Your task to perform on an android device: Clear the shopping cart on bestbuy. Search for duracell triple a on bestbuy, select the first entry, add it to the cart, then select checkout. Image 0: 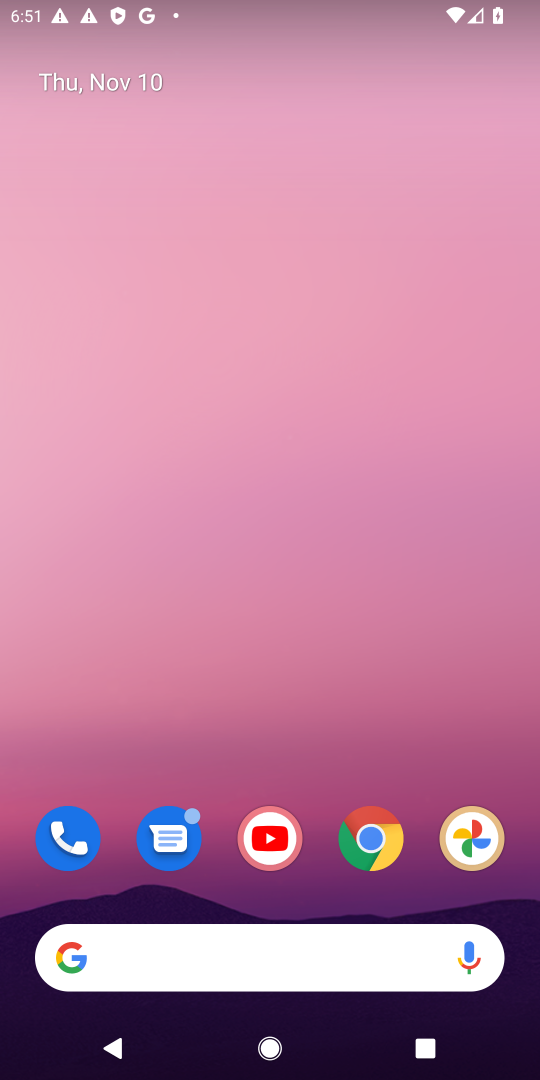
Step 0: drag from (320, 895) to (410, 124)
Your task to perform on an android device: Clear the shopping cart on bestbuy. Search for duracell triple a on bestbuy, select the first entry, add it to the cart, then select checkout. Image 1: 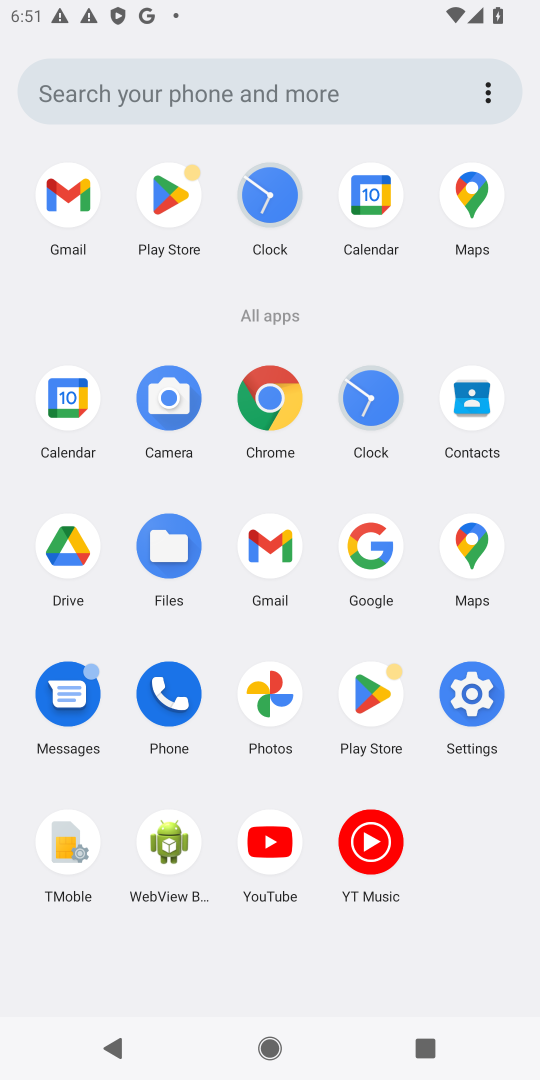
Step 1: click (260, 409)
Your task to perform on an android device: Clear the shopping cart on bestbuy. Search for duracell triple a on bestbuy, select the first entry, add it to the cart, then select checkout. Image 2: 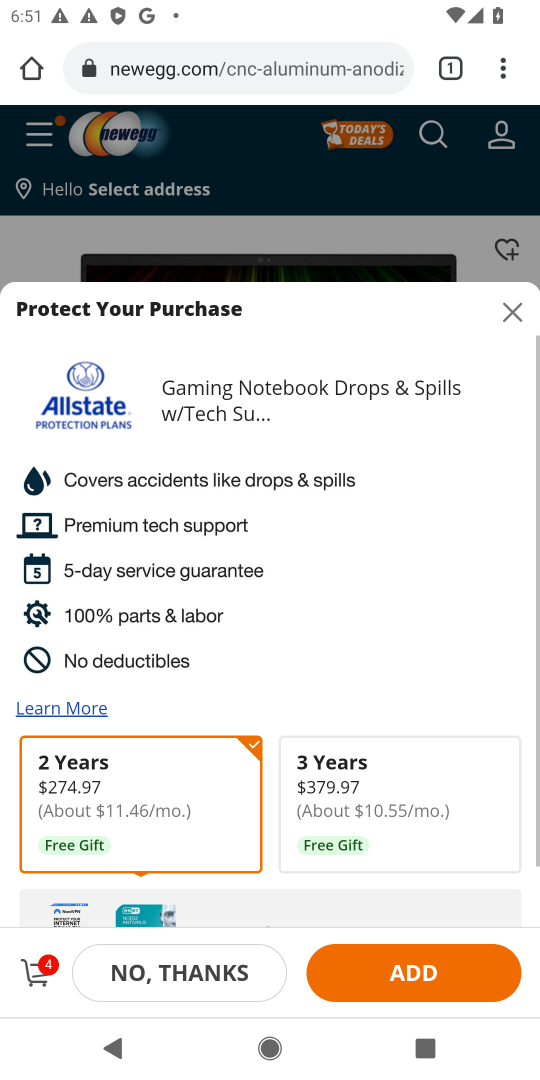
Step 2: click (279, 62)
Your task to perform on an android device: Clear the shopping cart on bestbuy. Search for duracell triple a on bestbuy, select the first entry, add it to the cart, then select checkout. Image 3: 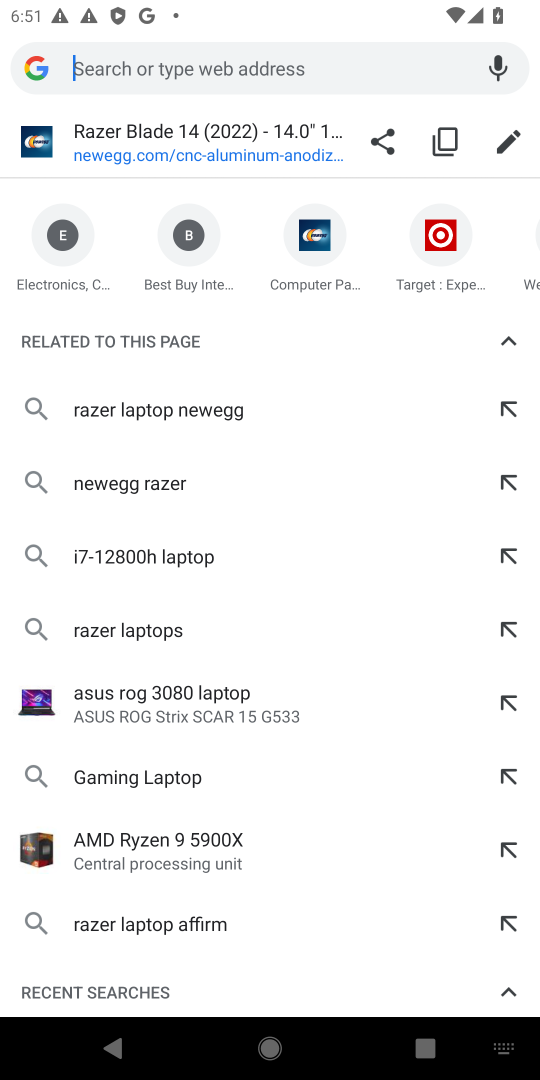
Step 3: type "bestbuy.com"
Your task to perform on an android device: Clear the shopping cart on bestbuy. Search for duracell triple a on bestbuy, select the first entry, add it to the cart, then select checkout. Image 4: 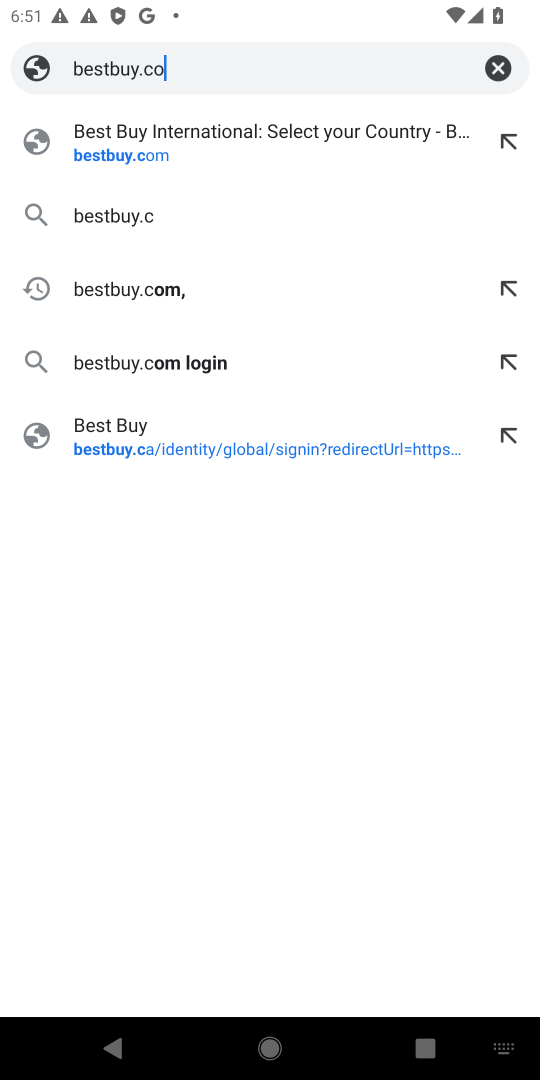
Step 4: press enter
Your task to perform on an android device: Clear the shopping cart on bestbuy. Search for duracell triple a on bestbuy, select the first entry, add it to the cart, then select checkout. Image 5: 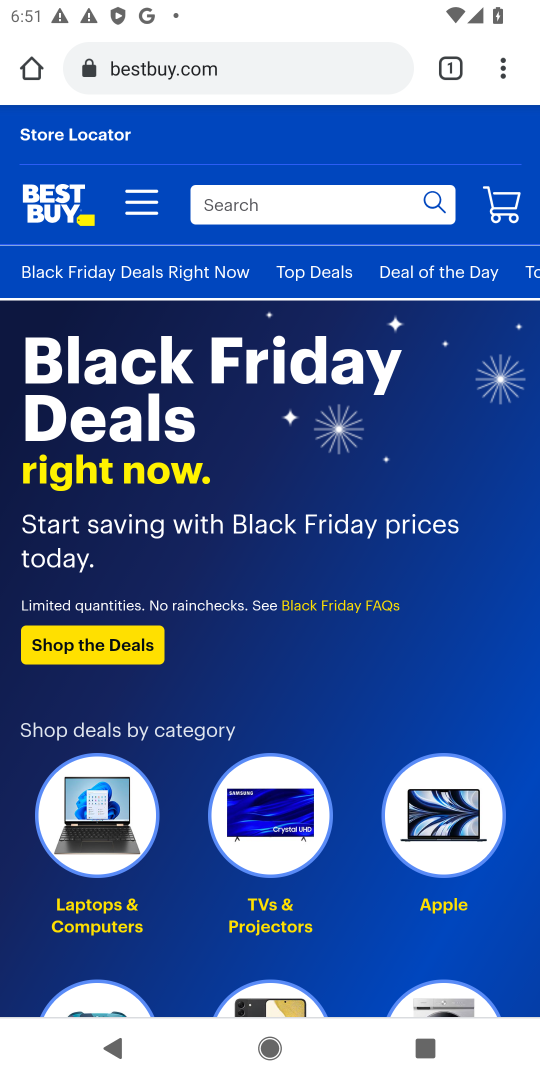
Step 5: click (498, 199)
Your task to perform on an android device: Clear the shopping cart on bestbuy. Search for duracell triple a on bestbuy, select the first entry, add it to the cart, then select checkout. Image 6: 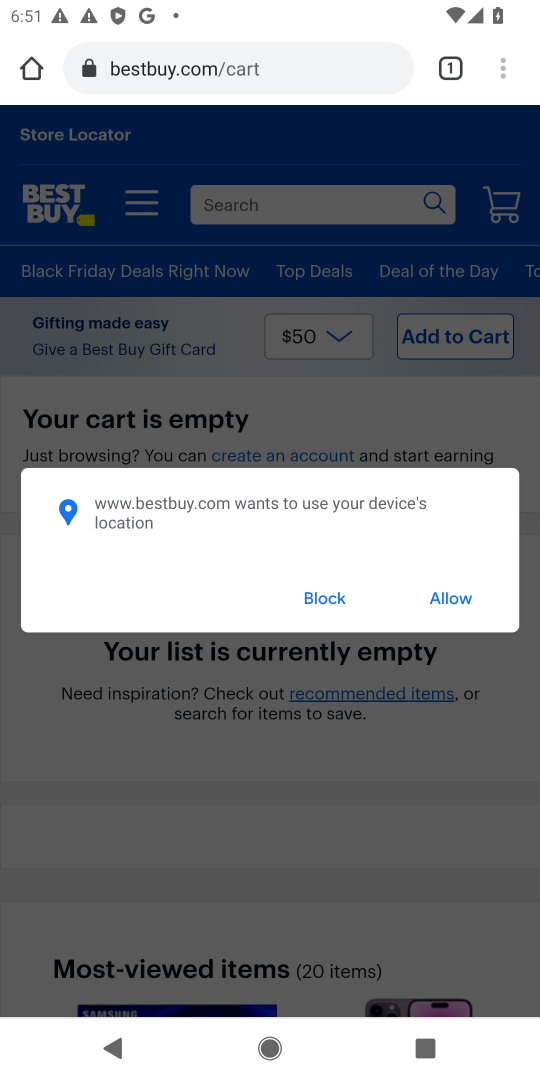
Step 6: click (341, 595)
Your task to perform on an android device: Clear the shopping cart on bestbuy. Search for duracell triple a on bestbuy, select the first entry, add it to the cart, then select checkout. Image 7: 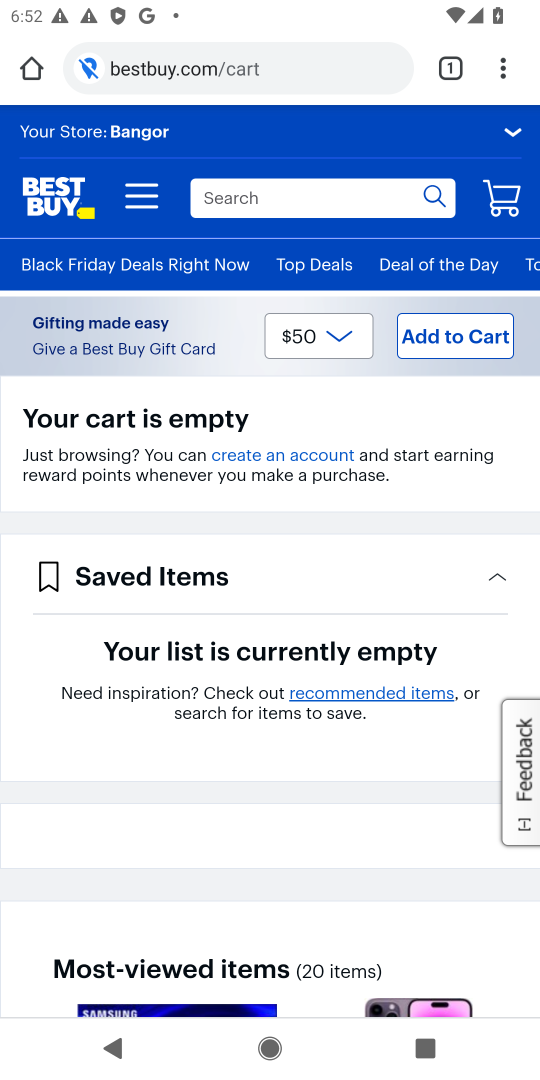
Step 7: click (361, 195)
Your task to perform on an android device: Clear the shopping cart on bestbuy. Search for duracell triple a on bestbuy, select the first entry, add it to the cart, then select checkout. Image 8: 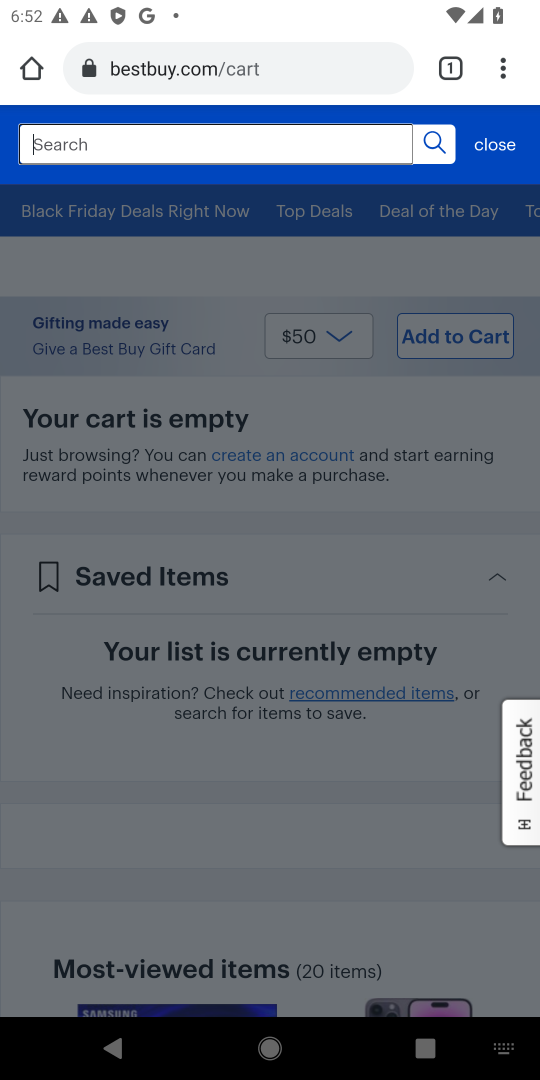
Step 8: type "duracell triple a"
Your task to perform on an android device: Clear the shopping cart on bestbuy. Search for duracell triple a on bestbuy, select the first entry, add it to the cart, then select checkout. Image 9: 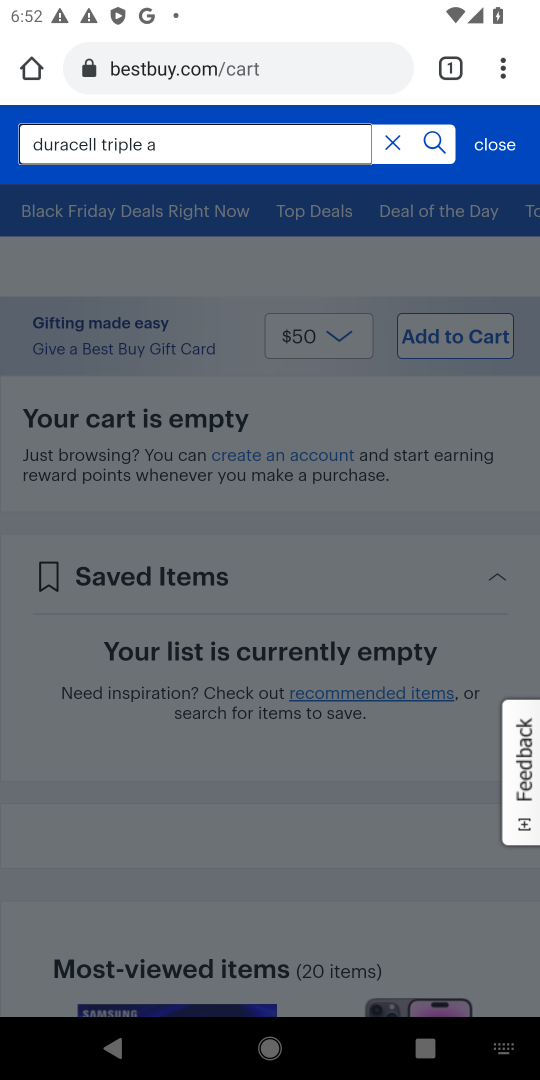
Step 9: press enter
Your task to perform on an android device: Clear the shopping cart on bestbuy. Search for duracell triple a on bestbuy, select the first entry, add it to the cart, then select checkout. Image 10: 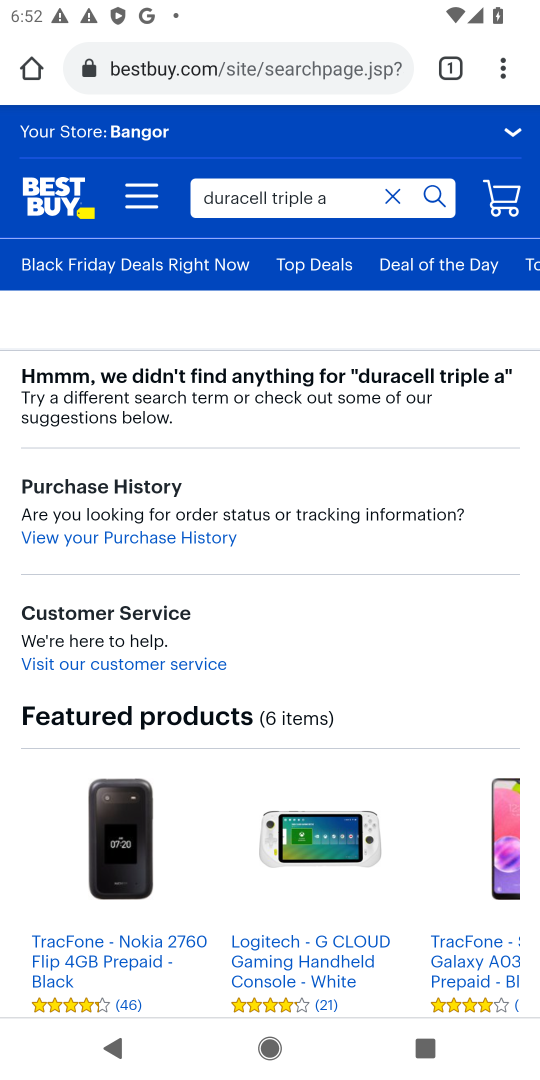
Step 10: task complete